Your task to perform on an android device: What is the news today? Image 0: 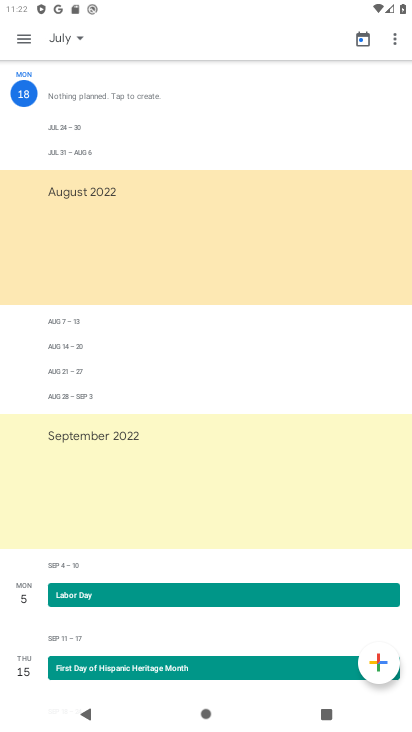
Step 0: press home button
Your task to perform on an android device: What is the news today? Image 1: 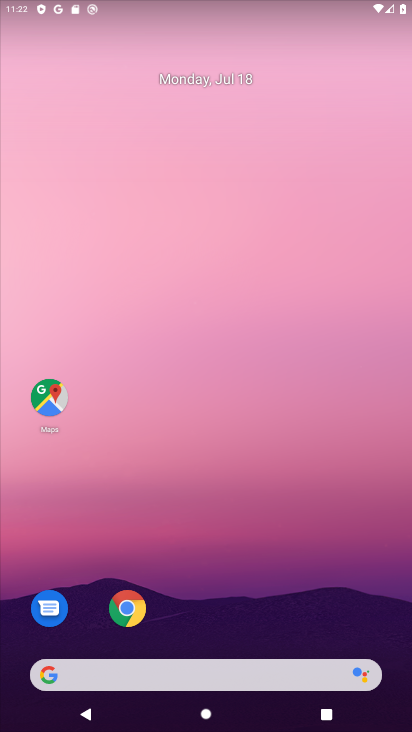
Step 1: click (164, 677)
Your task to perform on an android device: What is the news today? Image 2: 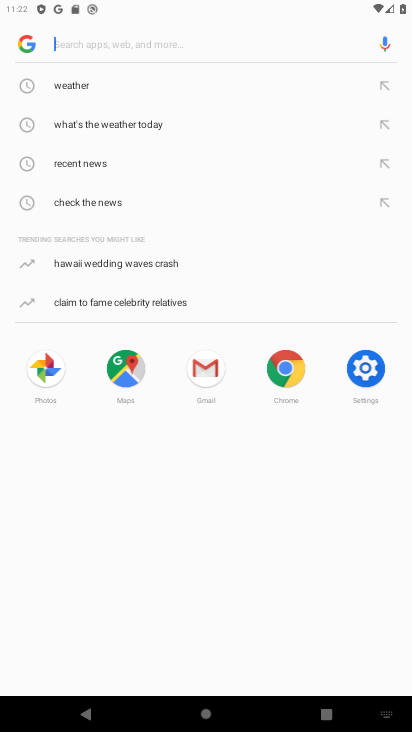
Step 2: type "what is the news today?"
Your task to perform on an android device: What is the news today? Image 3: 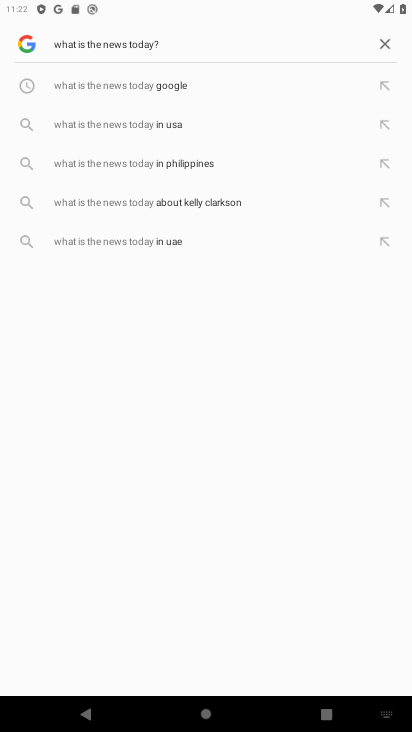
Step 3: click (160, 85)
Your task to perform on an android device: What is the news today? Image 4: 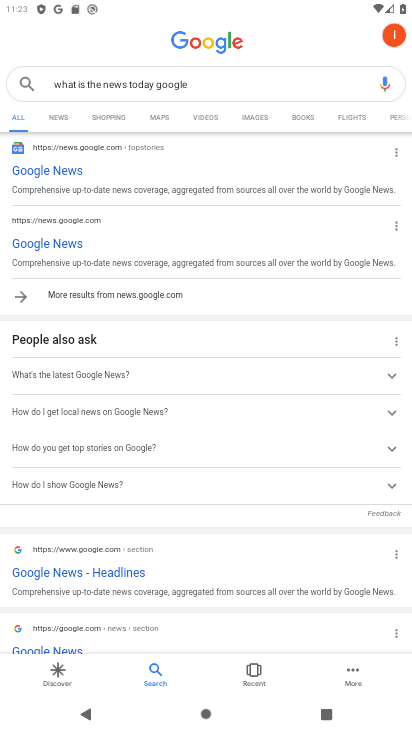
Step 4: click (65, 122)
Your task to perform on an android device: What is the news today? Image 5: 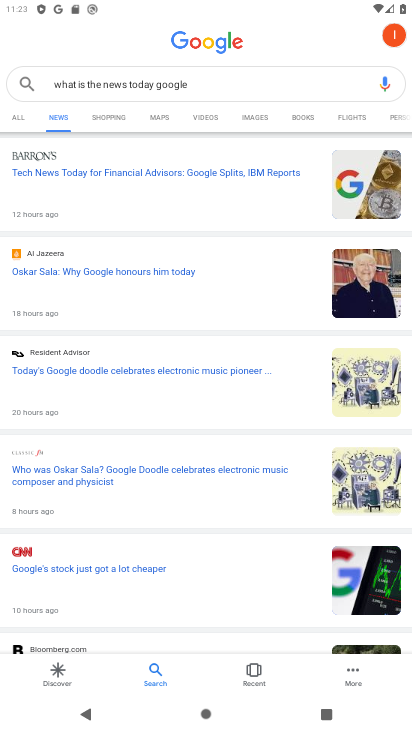
Step 5: task complete